Your task to perform on an android device: show emergency info Image 0: 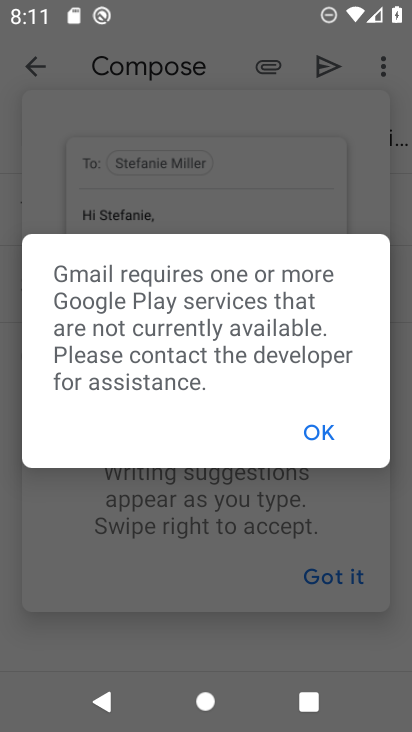
Step 0: press home button
Your task to perform on an android device: show emergency info Image 1: 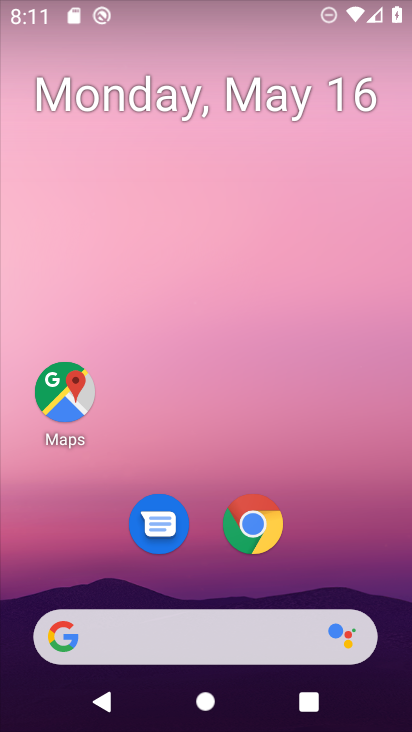
Step 1: drag from (298, 531) to (244, 65)
Your task to perform on an android device: show emergency info Image 2: 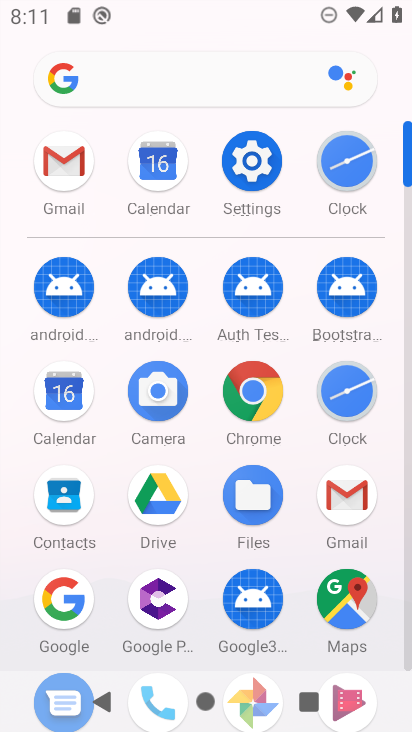
Step 2: click (239, 166)
Your task to perform on an android device: show emergency info Image 3: 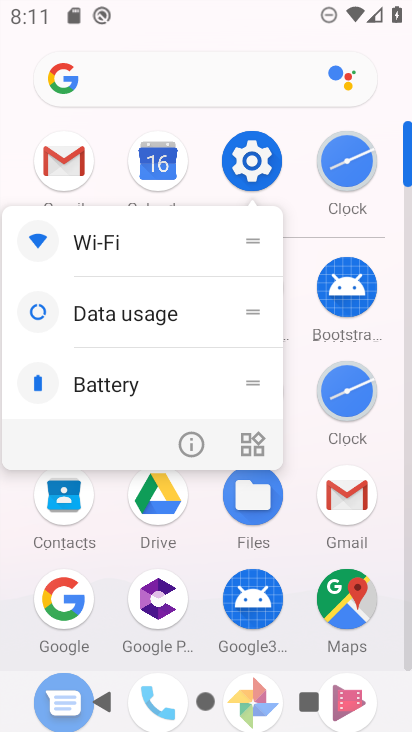
Step 3: click (266, 152)
Your task to perform on an android device: show emergency info Image 4: 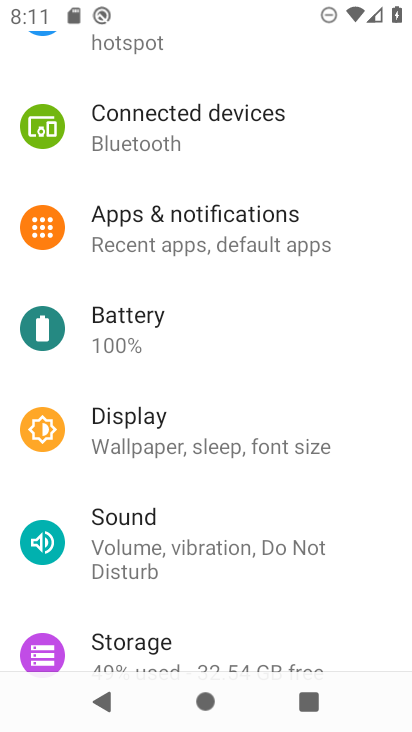
Step 4: drag from (256, 602) to (254, 0)
Your task to perform on an android device: show emergency info Image 5: 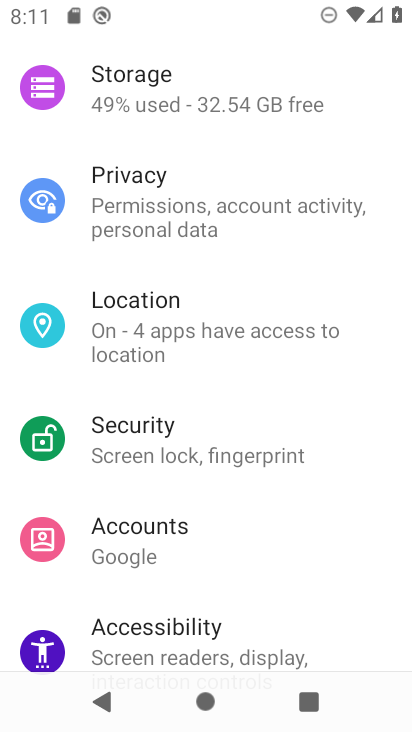
Step 5: drag from (227, 569) to (257, 121)
Your task to perform on an android device: show emergency info Image 6: 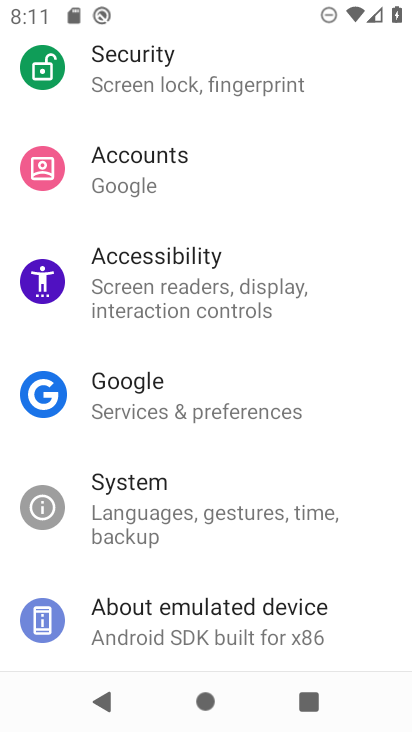
Step 6: click (194, 608)
Your task to perform on an android device: show emergency info Image 7: 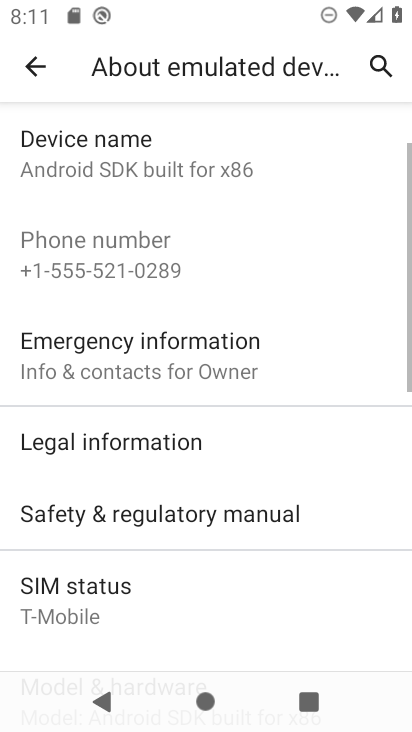
Step 7: click (227, 347)
Your task to perform on an android device: show emergency info Image 8: 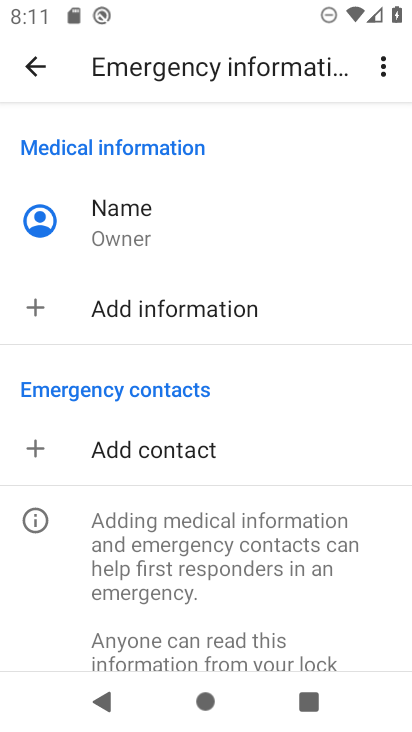
Step 8: task complete